Your task to perform on an android device: Go to network settings Image 0: 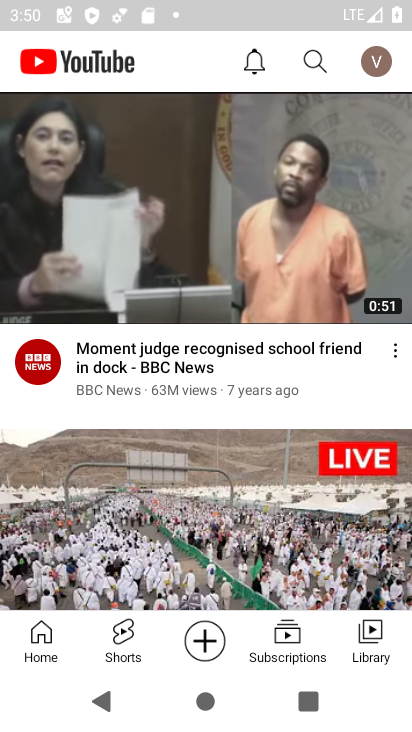
Step 0: press home button
Your task to perform on an android device: Go to network settings Image 1: 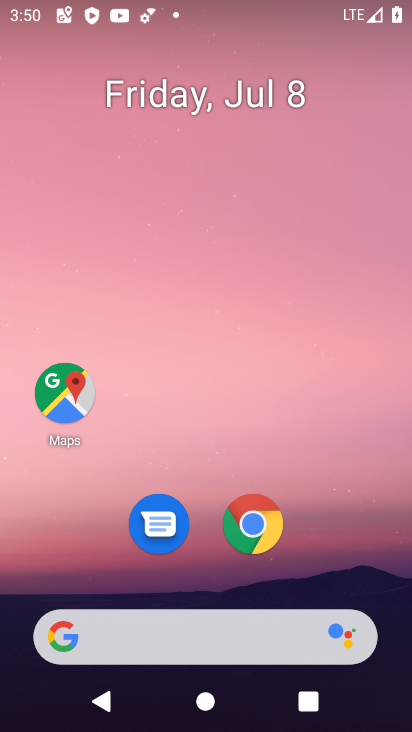
Step 1: drag from (204, 472) to (255, 0)
Your task to perform on an android device: Go to network settings Image 2: 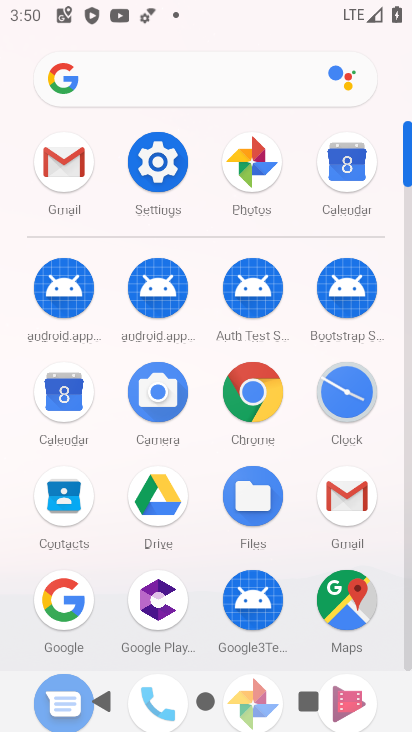
Step 2: click (156, 166)
Your task to perform on an android device: Go to network settings Image 3: 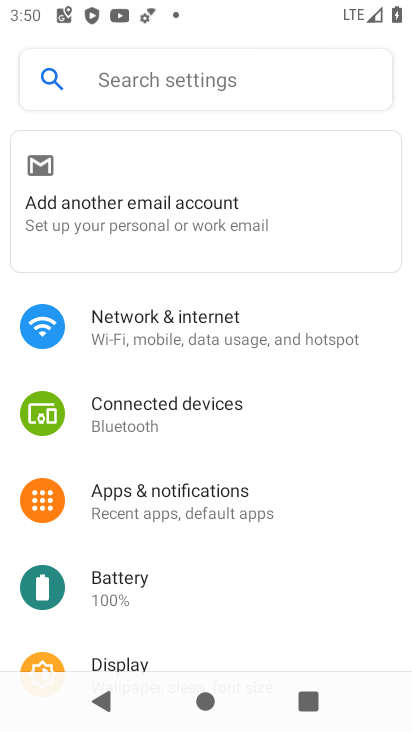
Step 3: click (193, 336)
Your task to perform on an android device: Go to network settings Image 4: 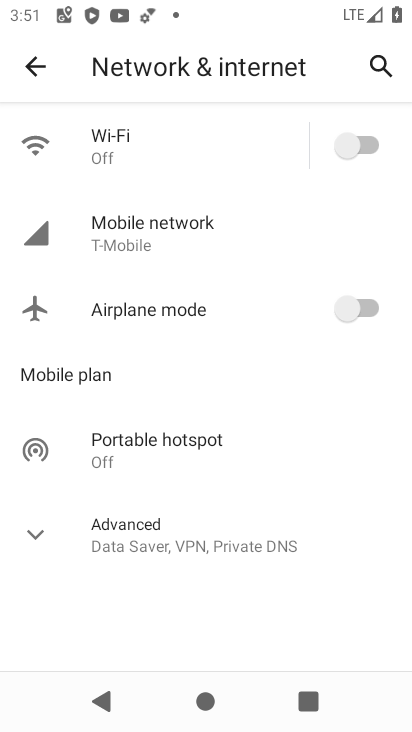
Step 4: task complete